Your task to perform on an android device: Go to eBay Image 0: 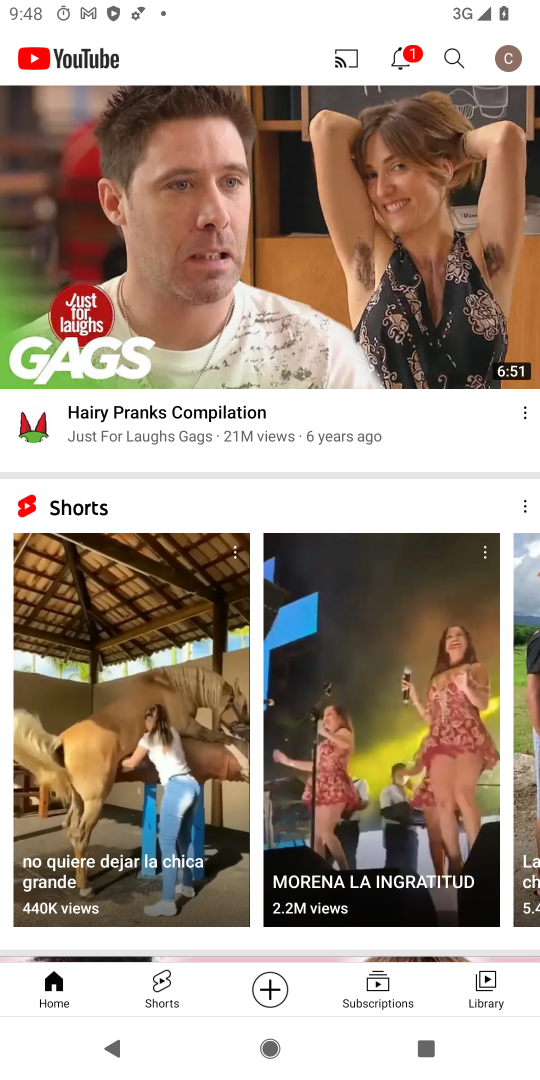
Step 0: press home button
Your task to perform on an android device: Go to eBay Image 1: 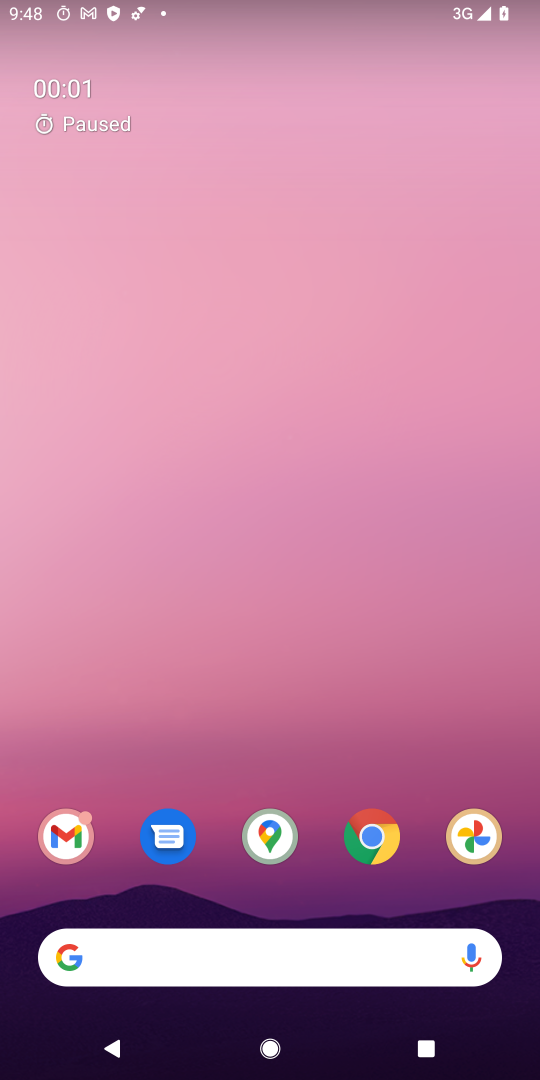
Step 1: drag from (431, 897) to (226, 63)
Your task to perform on an android device: Go to eBay Image 2: 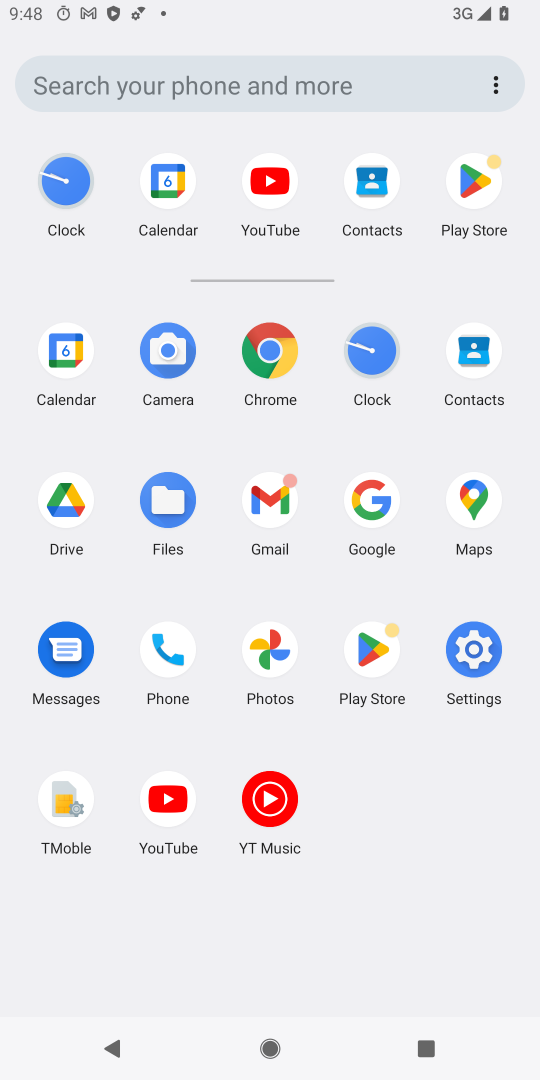
Step 2: click (368, 527)
Your task to perform on an android device: Go to eBay Image 3: 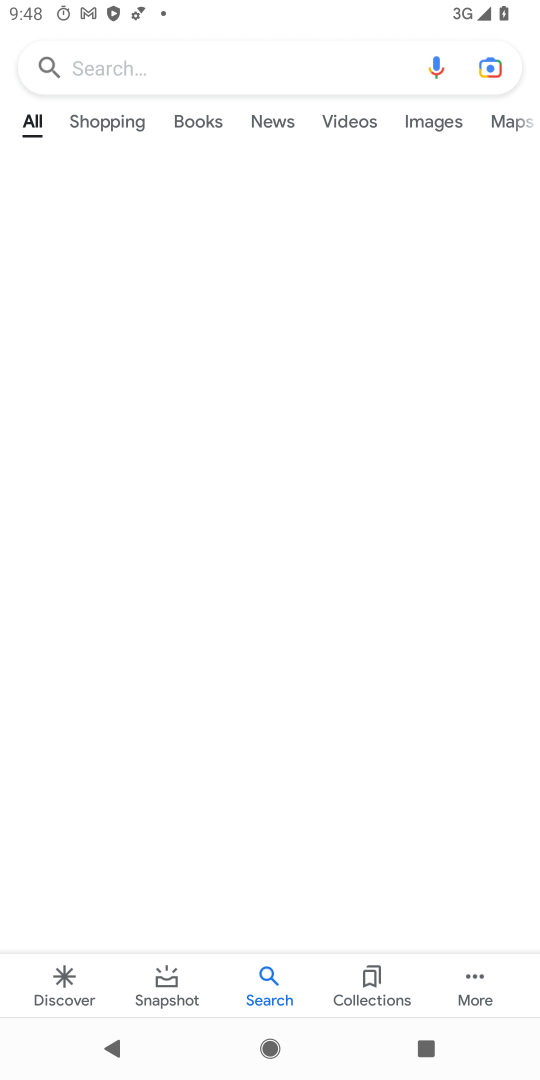
Step 3: click (222, 72)
Your task to perform on an android device: Go to eBay Image 4: 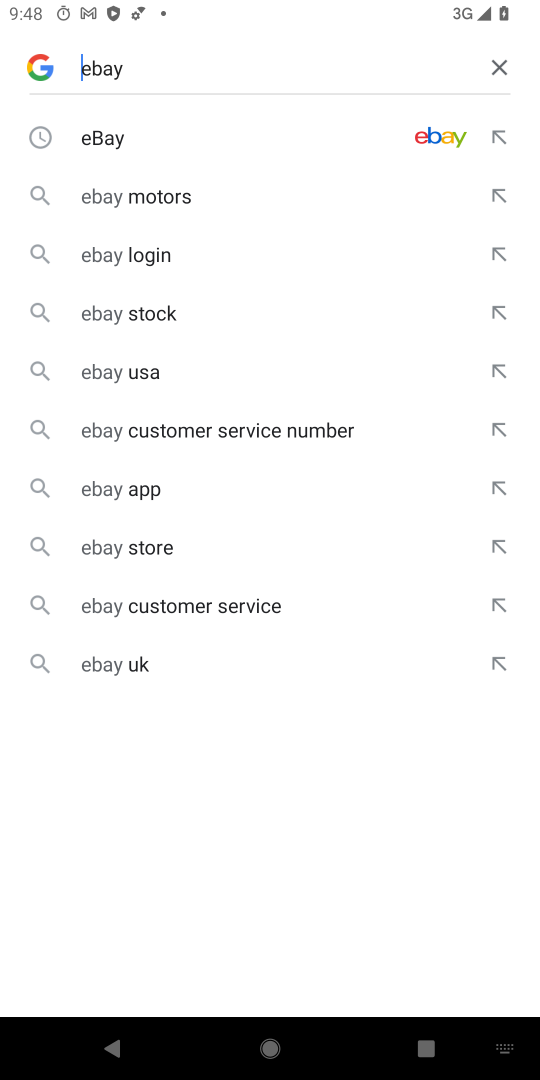
Step 4: click (335, 122)
Your task to perform on an android device: Go to eBay Image 5: 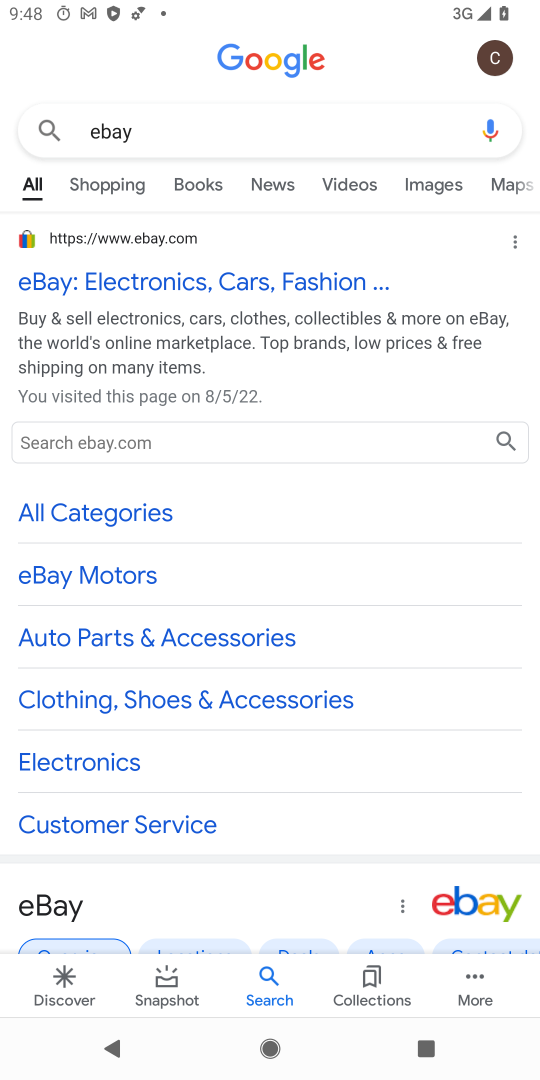
Step 5: task complete